Your task to perform on an android device: empty trash in google photos Image 0: 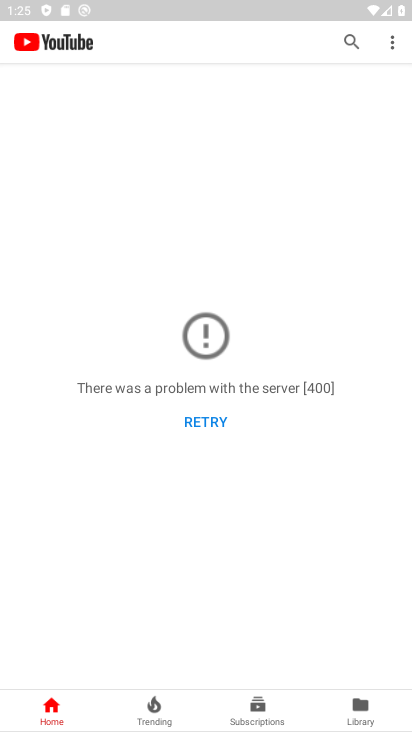
Step 0: press back button
Your task to perform on an android device: empty trash in google photos Image 1: 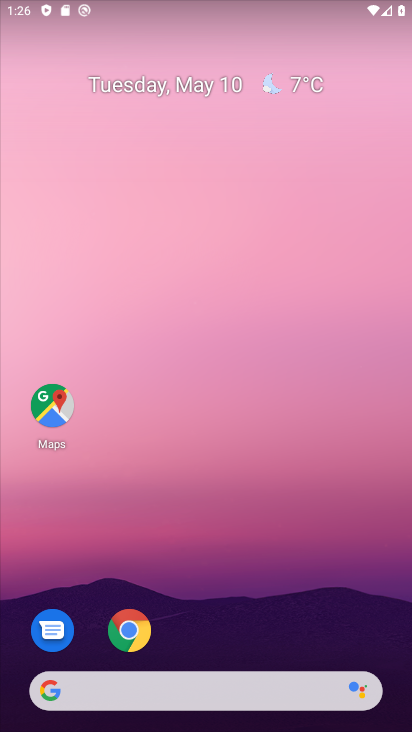
Step 1: drag from (255, 687) to (243, 358)
Your task to perform on an android device: empty trash in google photos Image 2: 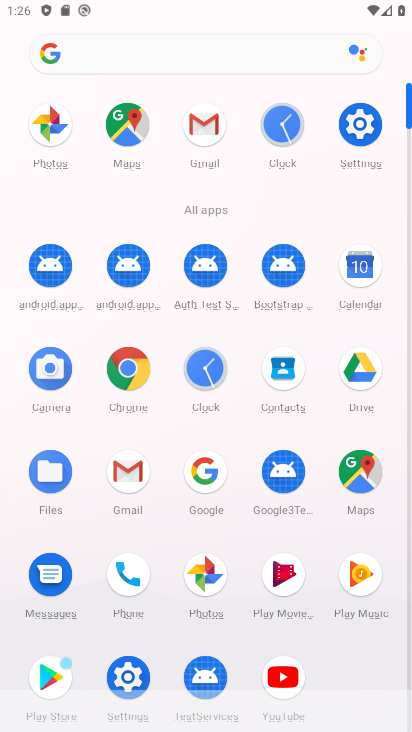
Step 2: click (211, 568)
Your task to perform on an android device: empty trash in google photos Image 3: 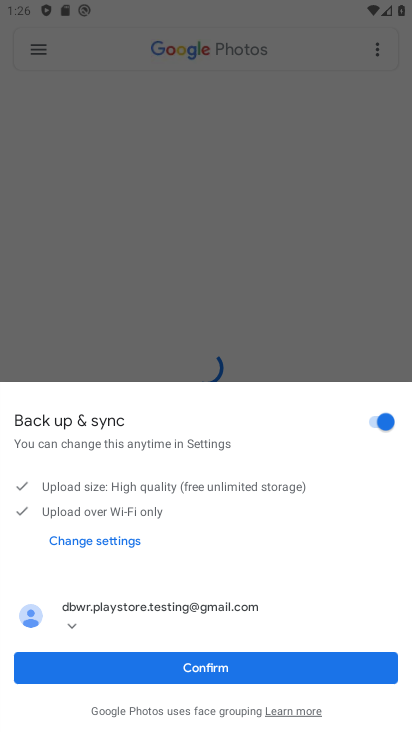
Step 3: click (348, 697)
Your task to perform on an android device: empty trash in google photos Image 4: 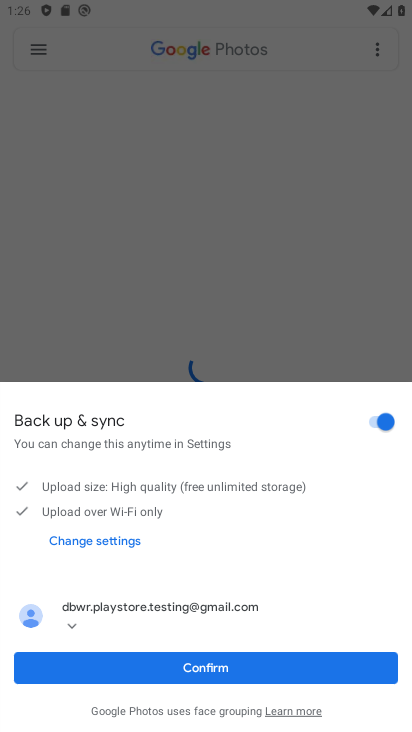
Step 4: click (334, 674)
Your task to perform on an android device: empty trash in google photos Image 5: 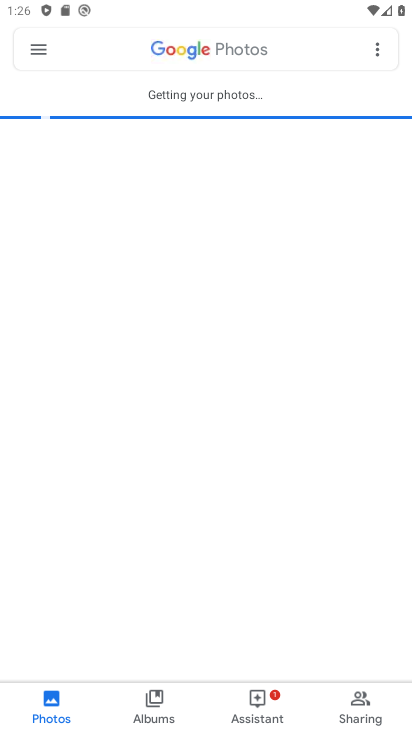
Step 5: click (362, 704)
Your task to perform on an android device: empty trash in google photos Image 6: 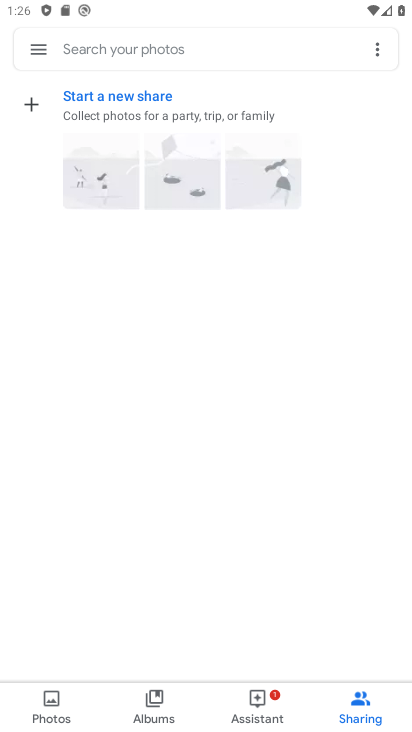
Step 6: click (263, 726)
Your task to perform on an android device: empty trash in google photos Image 7: 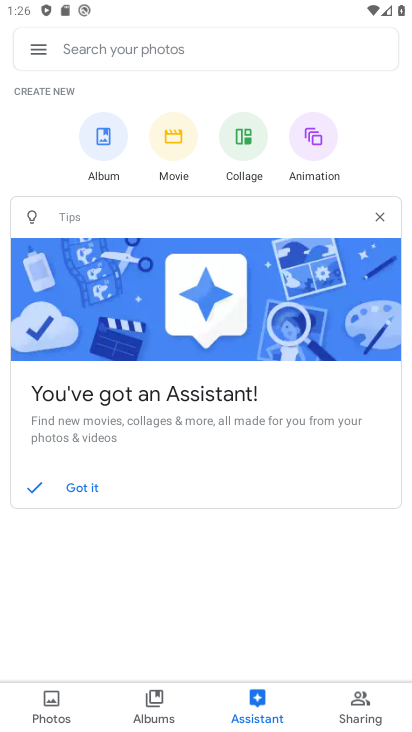
Step 7: click (57, 707)
Your task to perform on an android device: empty trash in google photos Image 8: 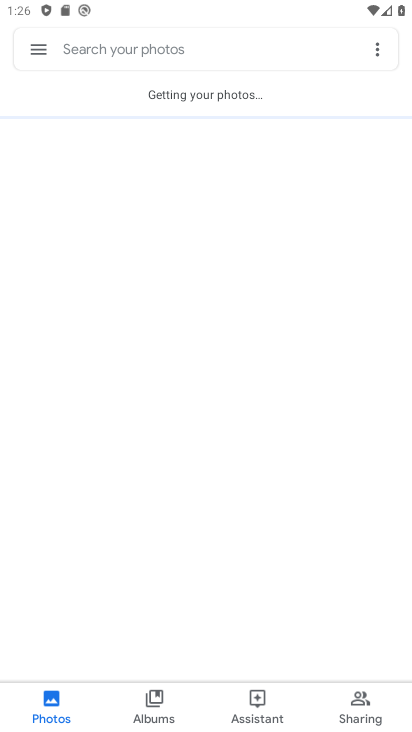
Step 8: click (38, 47)
Your task to perform on an android device: empty trash in google photos Image 9: 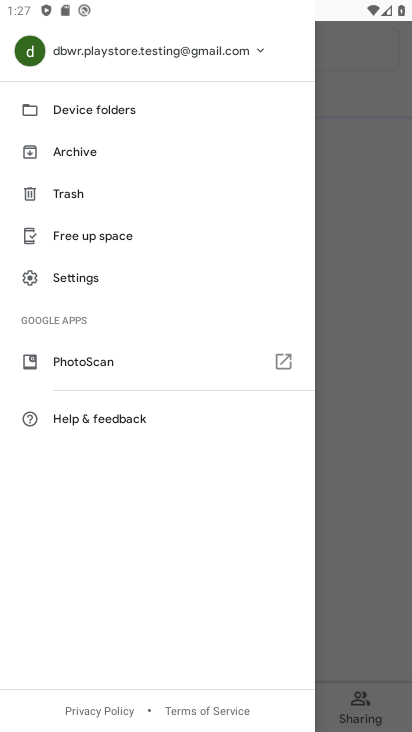
Step 9: click (89, 187)
Your task to perform on an android device: empty trash in google photos Image 10: 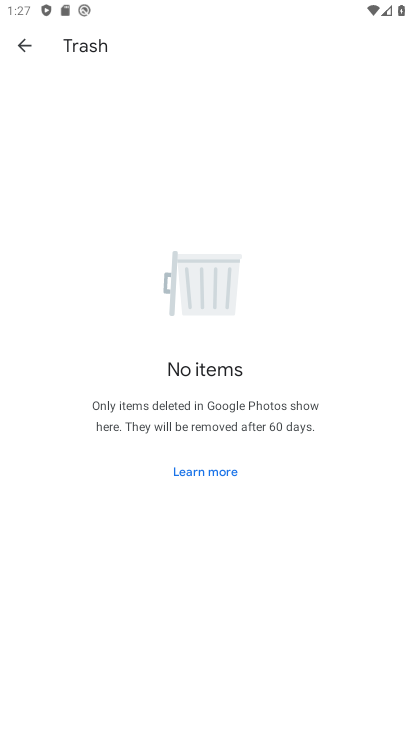
Step 10: task complete